Your task to perform on an android device: Open Chrome and go to settings Image 0: 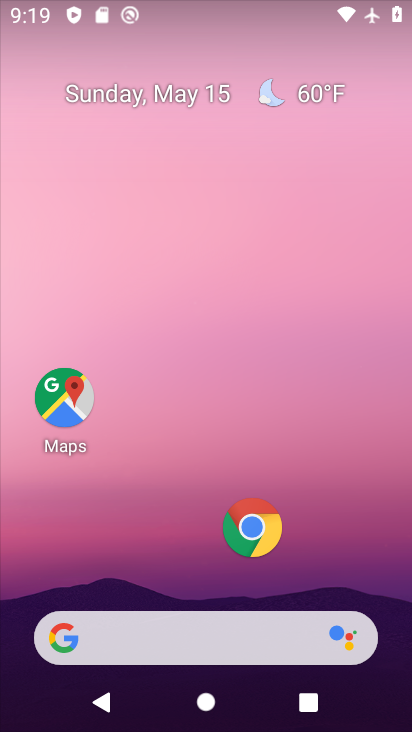
Step 0: click (253, 524)
Your task to perform on an android device: Open Chrome and go to settings Image 1: 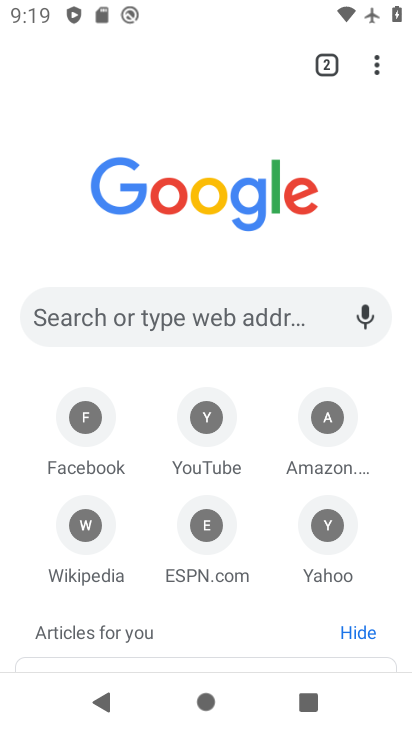
Step 1: click (371, 56)
Your task to perform on an android device: Open Chrome and go to settings Image 2: 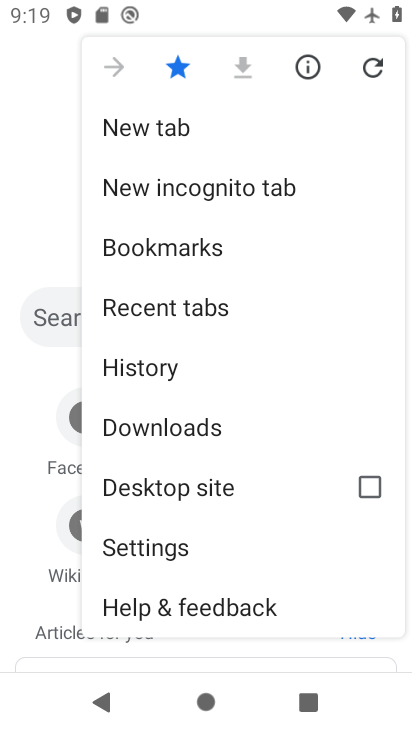
Step 2: click (198, 545)
Your task to perform on an android device: Open Chrome and go to settings Image 3: 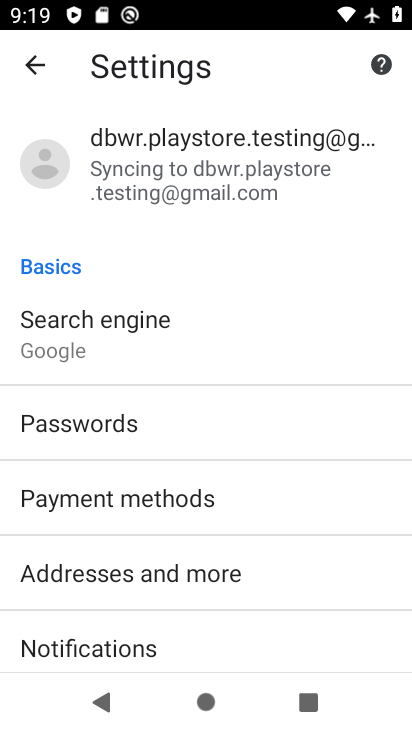
Step 3: task complete